Your task to perform on an android device: Go to settings Image 0: 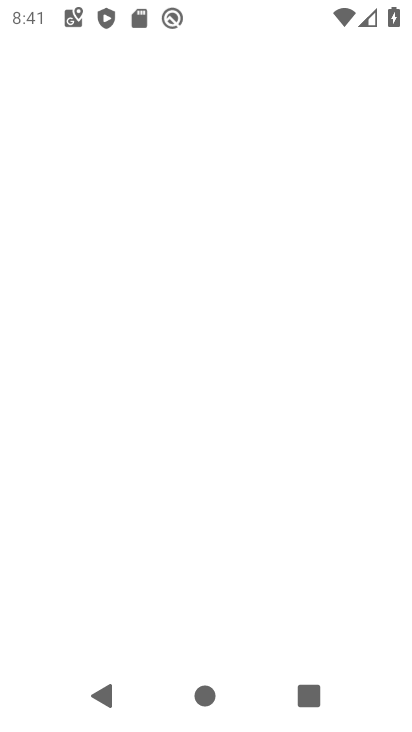
Step 0: press home button
Your task to perform on an android device: Go to settings Image 1: 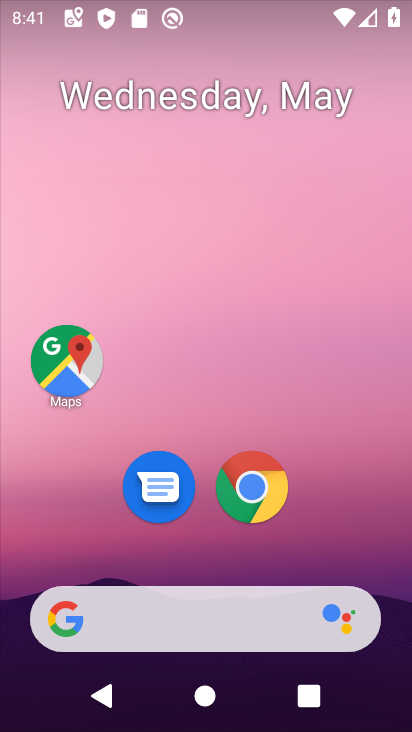
Step 1: drag from (216, 557) to (258, 42)
Your task to perform on an android device: Go to settings Image 2: 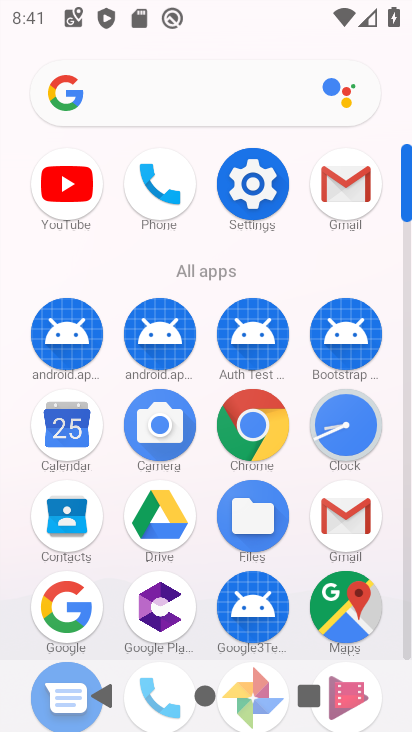
Step 2: click (255, 191)
Your task to perform on an android device: Go to settings Image 3: 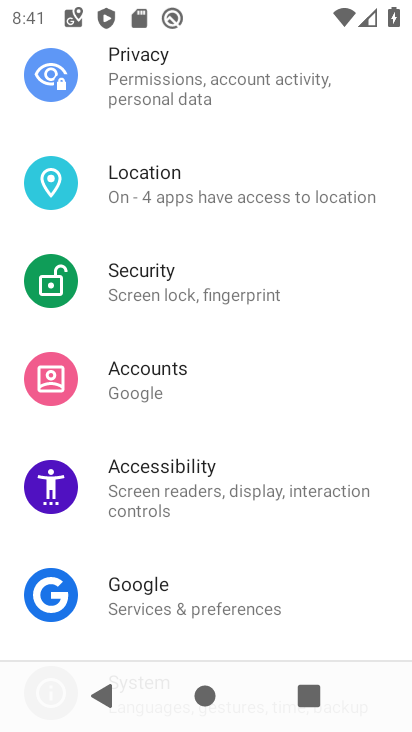
Step 3: task complete